Your task to perform on an android device: find which apps use the phone's location Image 0: 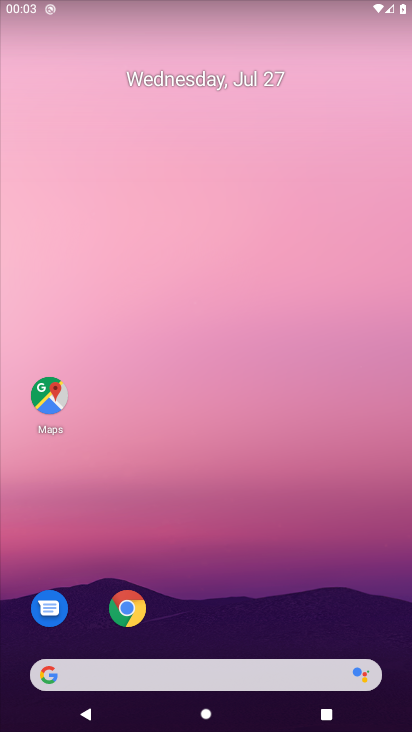
Step 0: press home button
Your task to perform on an android device: find which apps use the phone's location Image 1: 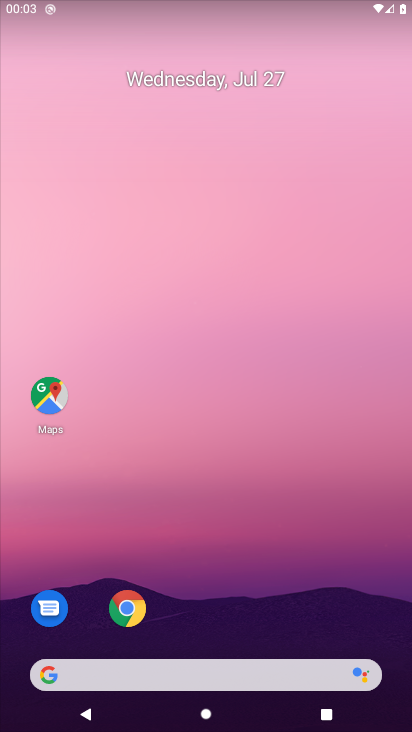
Step 1: drag from (294, 560) to (299, 197)
Your task to perform on an android device: find which apps use the phone's location Image 2: 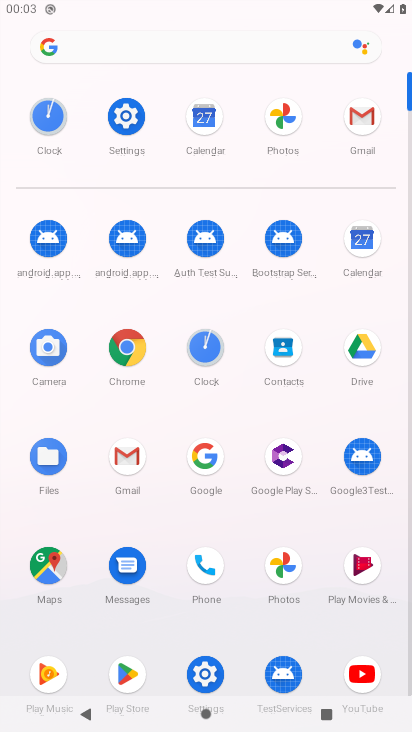
Step 2: click (134, 122)
Your task to perform on an android device: find which apps use the phone's location Image 3: 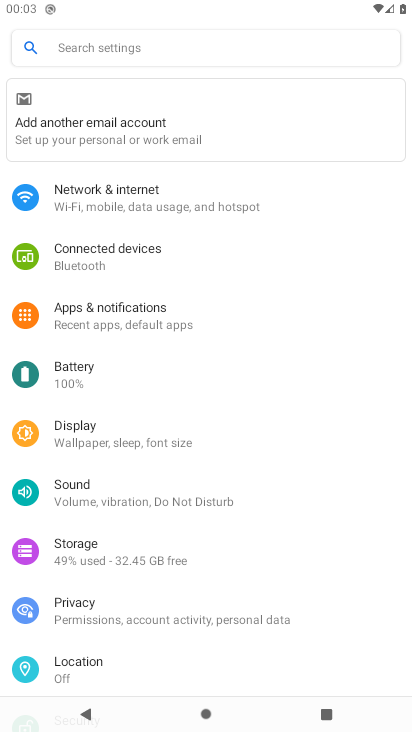
Step 3: click (66, 660)
Your task to perform on an android device: find which apps use the phone's location Image 4: 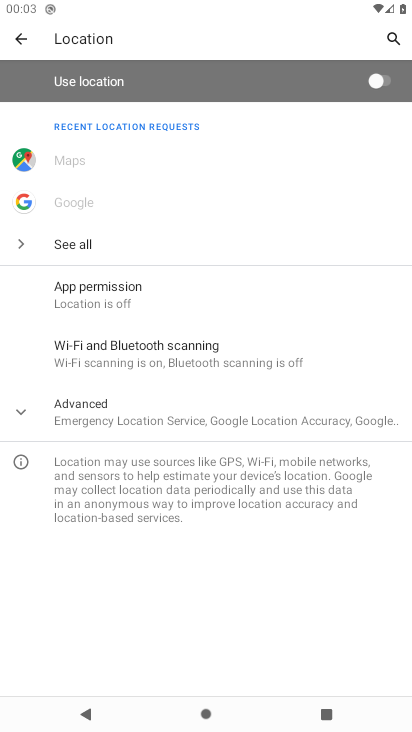
Step 4: click (111, 295)
Your task to perform on an android device: find which apps use the phone's location Image 5: 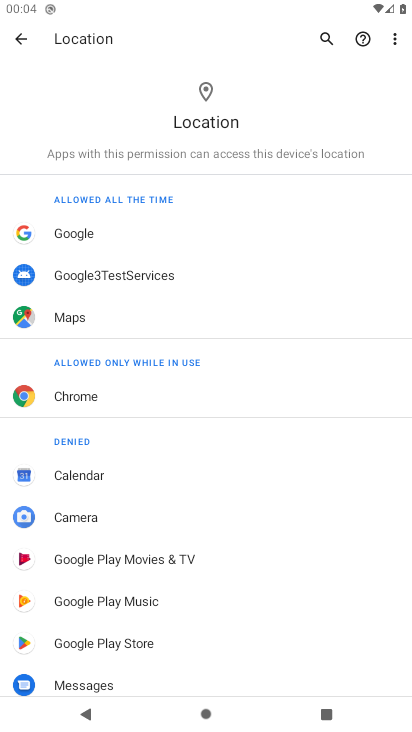
Step 5: task complete